Your task to perform on an android device: turn on improve location accuracy Image 0: 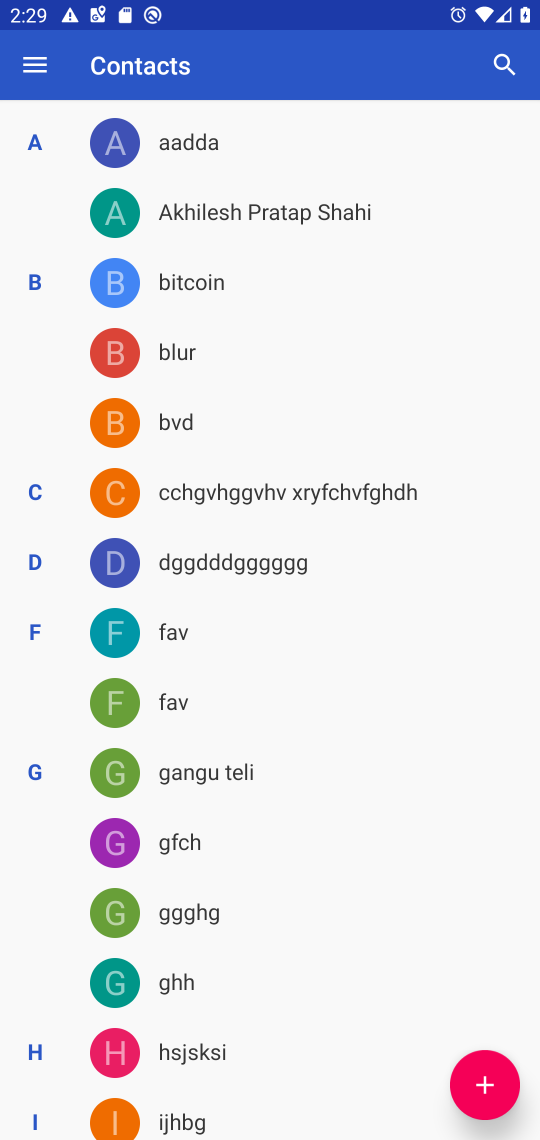
Step 0: press home button
Your task to perform on an android device: turn on improve location accuracy Image 1: 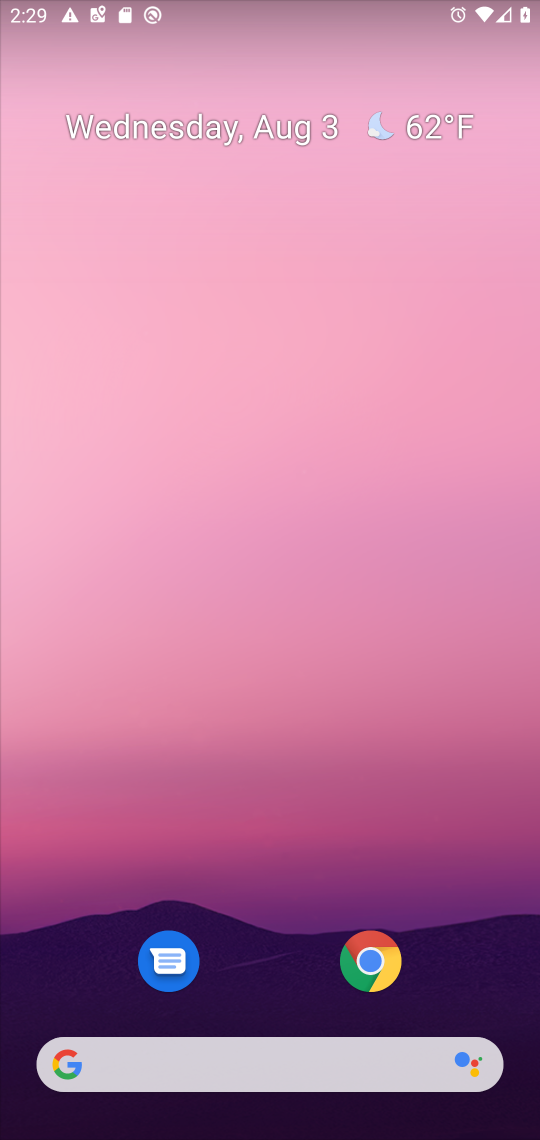
Step 1: drag from (267, 984) to (259, 13)
Your task to perform on an android device: turn on improve location accuracy Image 2: 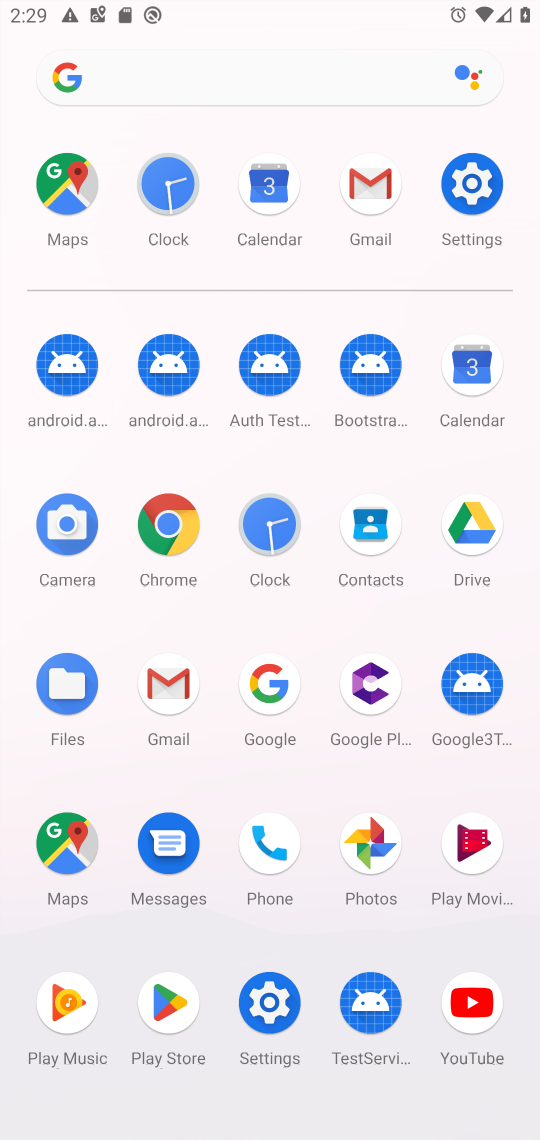
Step 2: click (467, 183)
Your task to perform on an android device: turn on improve location accuracy Image 3: 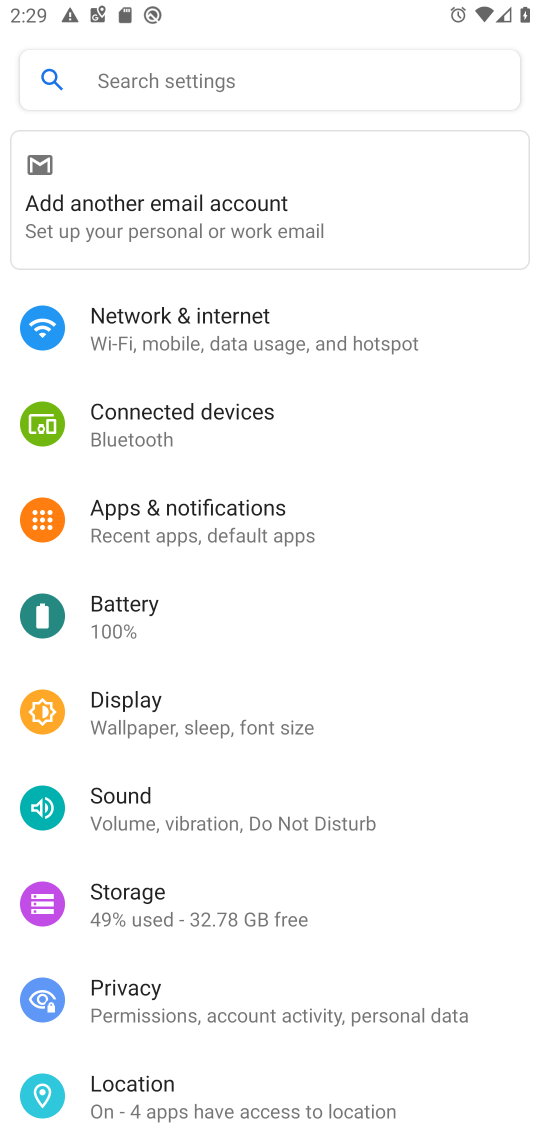
Step 3: click (157, 1097)
Your task to perform on an android device: turn on improve location accuracy Image 4: 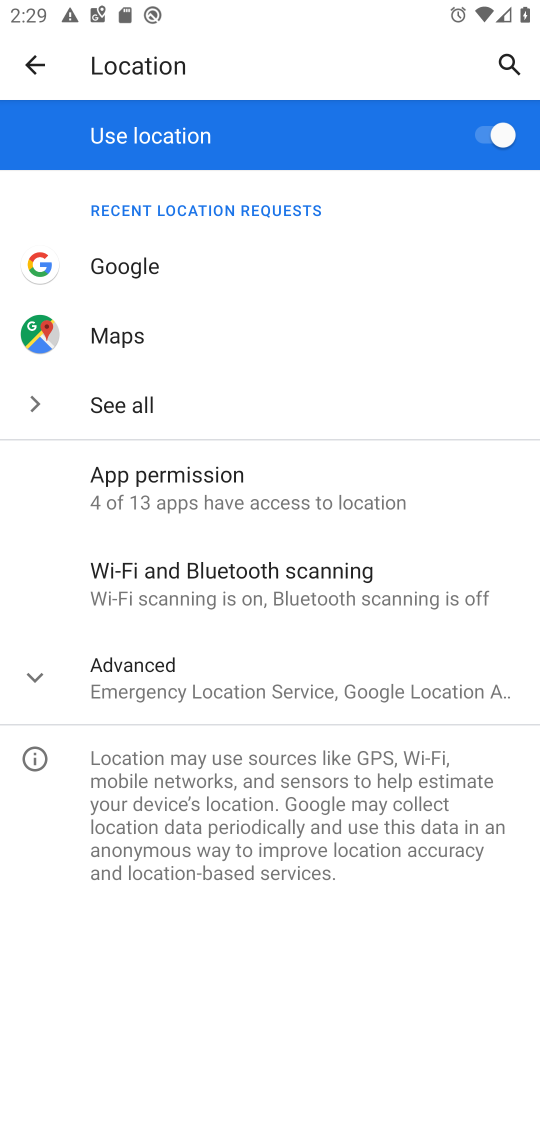
Step 4: click (32, 690)
Your task to perform on an android device: turn on improve location accuracy Image 5: 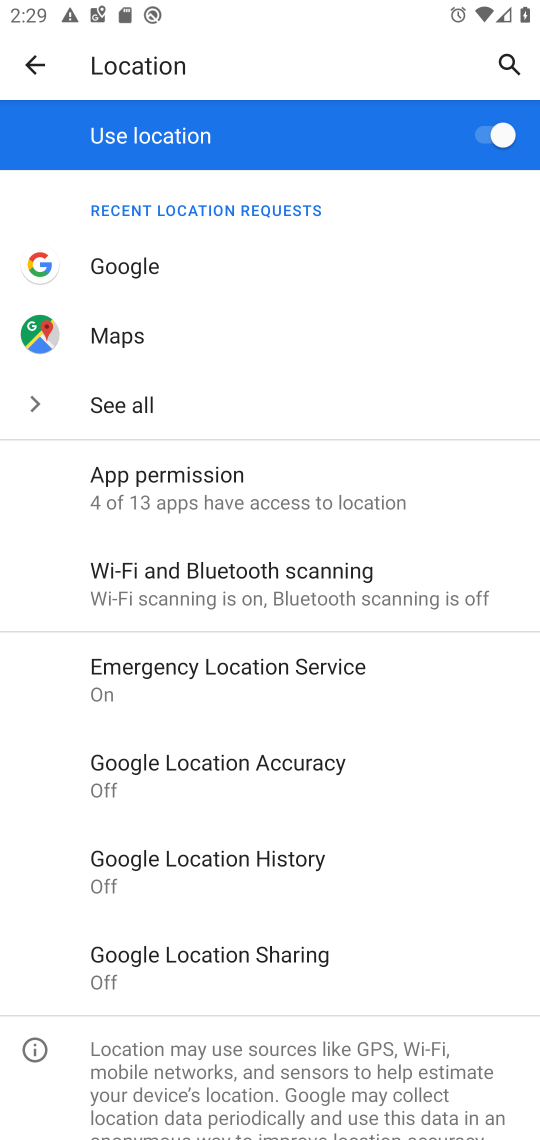
Step 5: click (191, 774)
Your task to perform on an android device: turn on improve location accuracy Image 6: 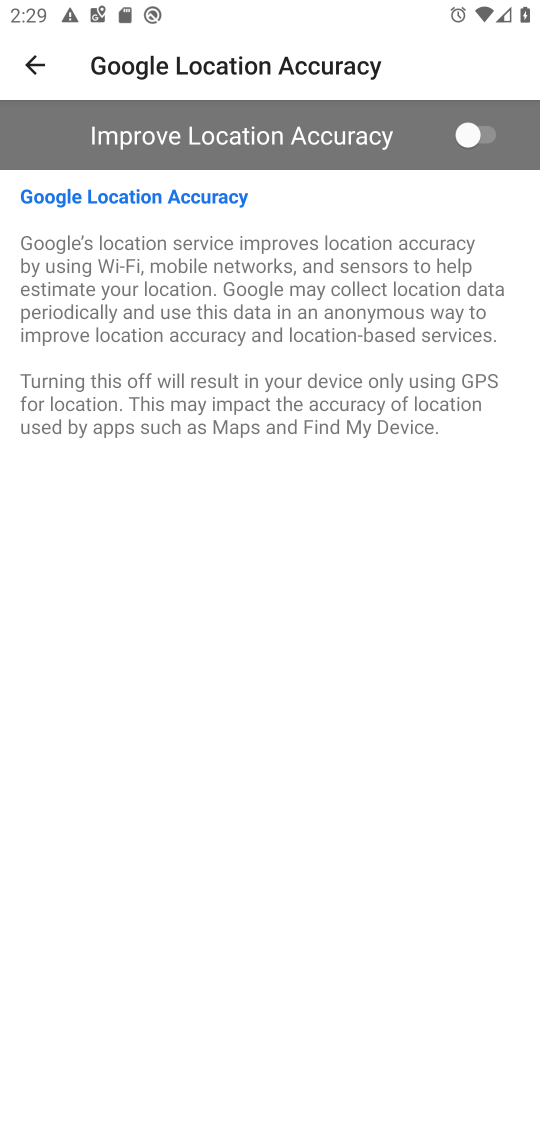
Step 6: click (461, 145)
Your task to perform on an android device: turn on improve location accuracy Image 7: 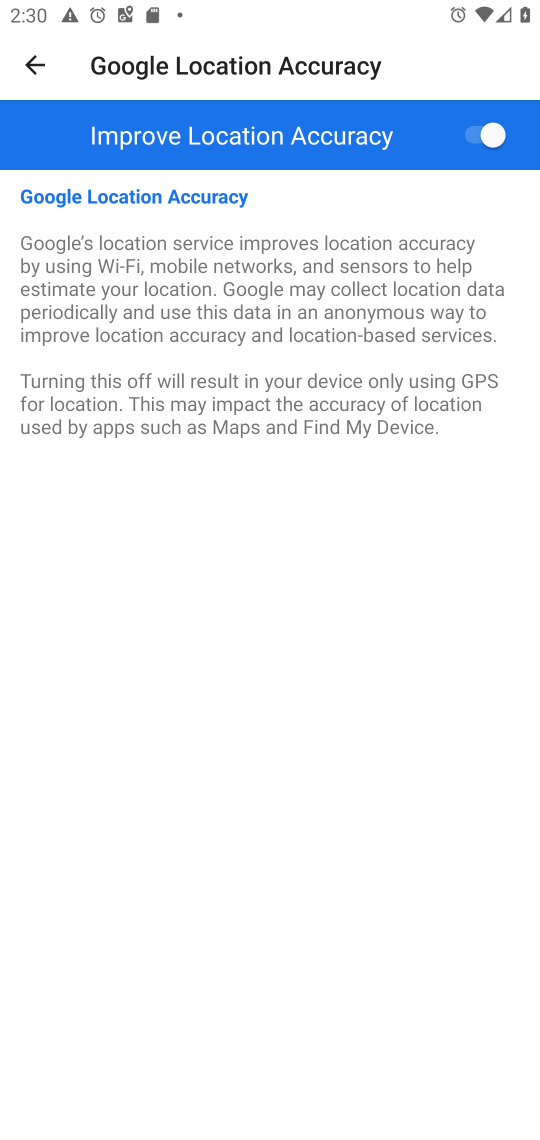
Step 7: task complete